Your task to perform on an android device: empty trash in the gmail app Image 0: 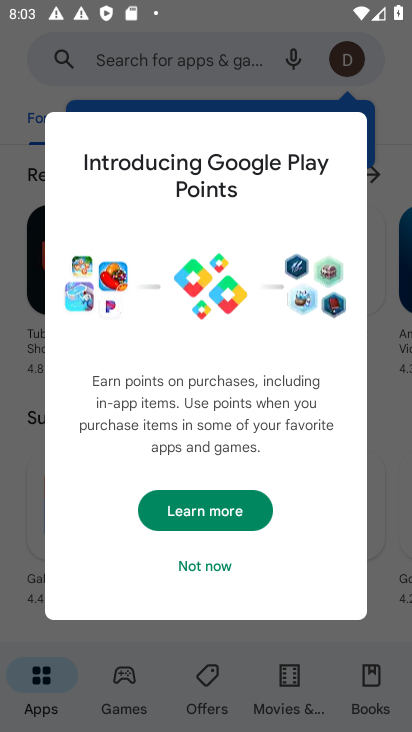
Step 0: press home button
Your task to perform on an android device: empty trash in the gmail app Image 1: 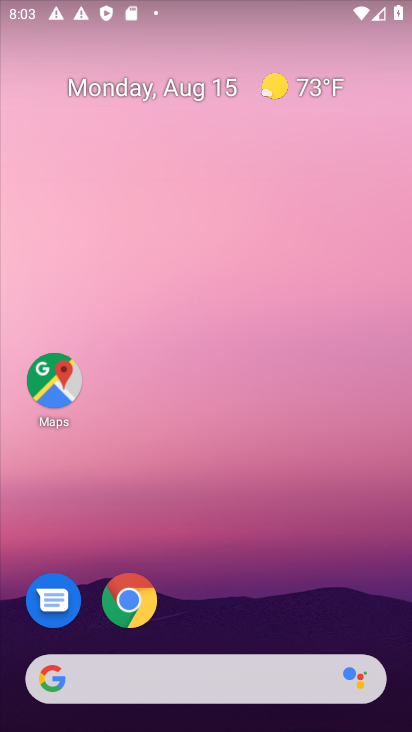
Step 1: drag from (197, 637) to (171, 147)
Your task to perform on an android device: empty trash in the gmail app Image 2: 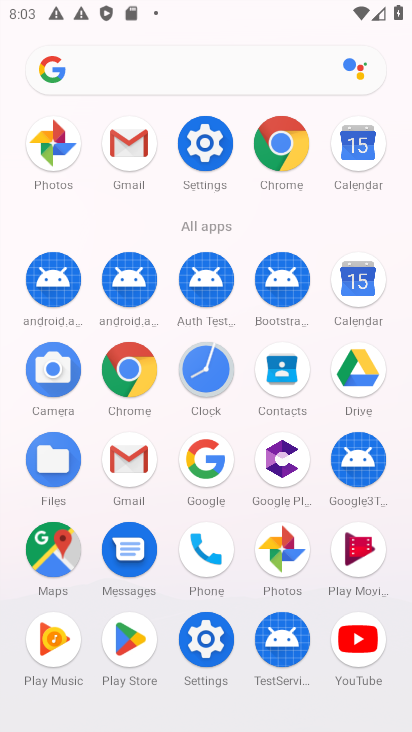
Step 2: click (124, 124)
Your task to perform on an android device: empty trash in the gmail app Image 3: 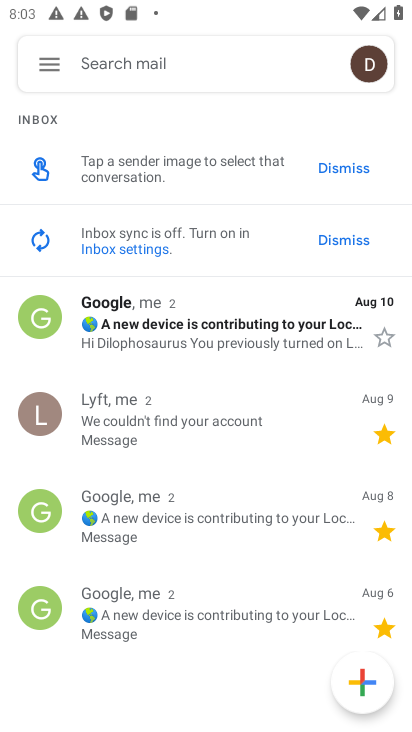
Step 3: click (47, 62)
Your task to perform on an android device: empty trash in the gmail app Image 4: 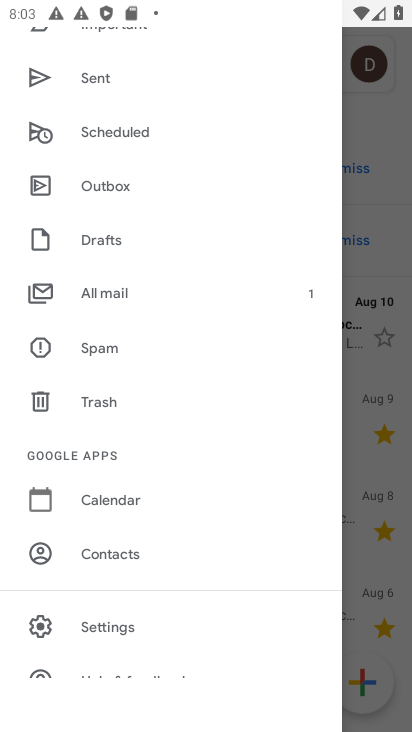
Step 4: click (100, 401)
Your task to perform on an android device: empty trash in the gmail app Image 5: 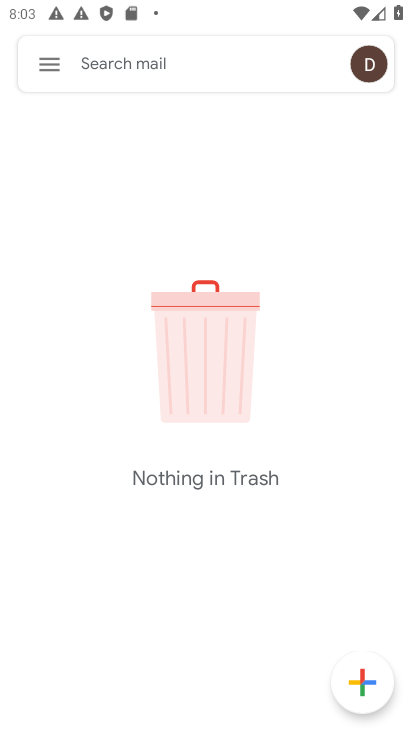
Step 5: task complete